Your task to perform on an android device: Show me the alarms in the clock app Image 0: 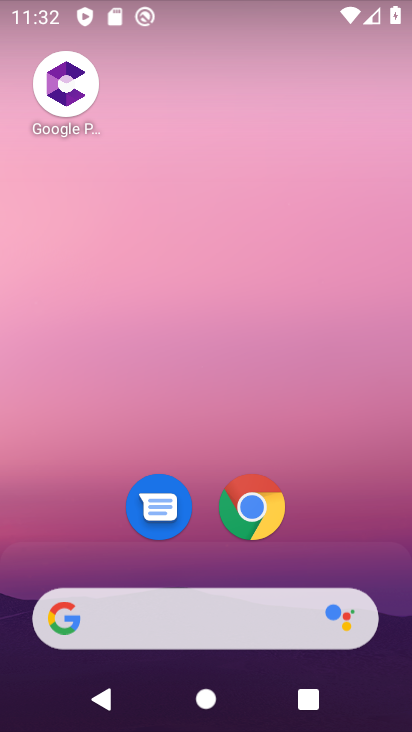
Step 0: drag from (320, 499) to (322, 81)
Your task to perform on an android device: Show me the alarms in the clock app Image 1: 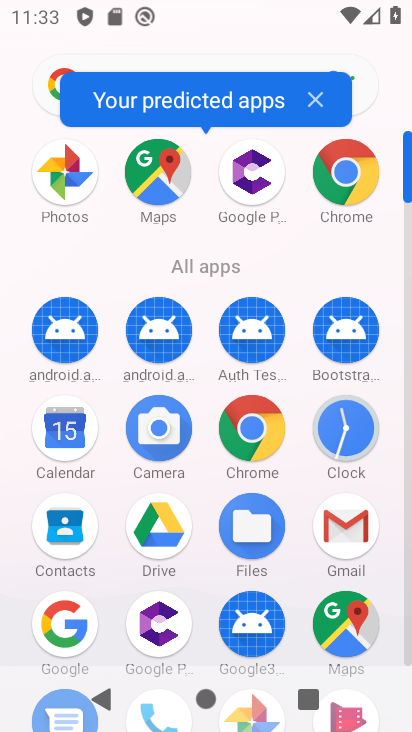
Step 1: click (366, 447)
Your task to perform on an android device: Show me the alarms in the clock app Image 2: 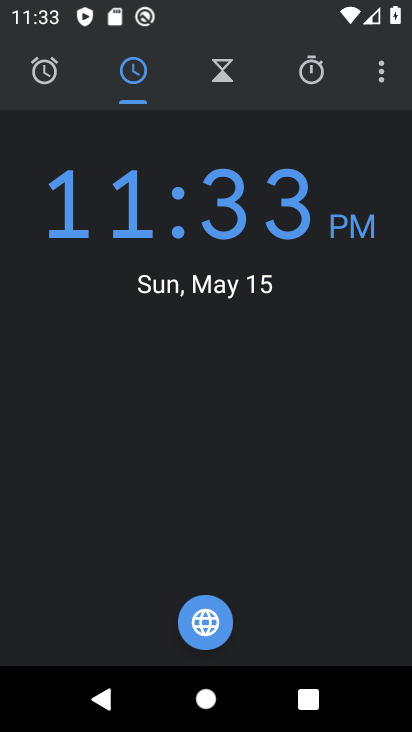
Step 2: click (52, 75)
Your task to perform on an android device: Show me the alarms in the clock app Image 3: 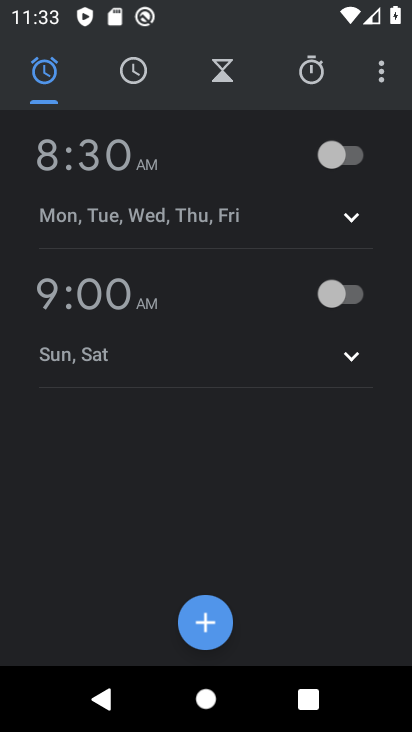
Step 3: task complete